Your task to perform on an android device: toggle translation in the chrome app Image 0: 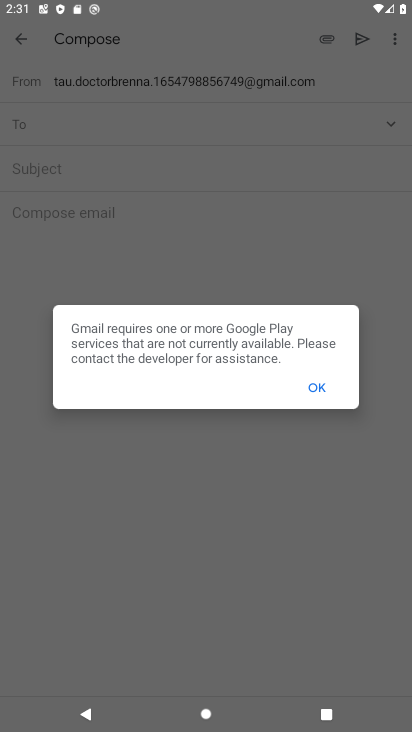
Step 0: press back button
Your task to perform on an android device: toggle translation in the chrome app Image 1: 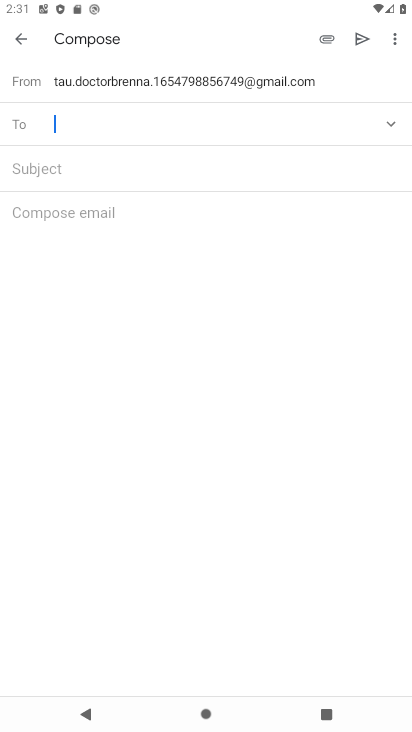
Step 1: press back button
Your task to perform on an android device: toggle translation in the chrome app Image 2: 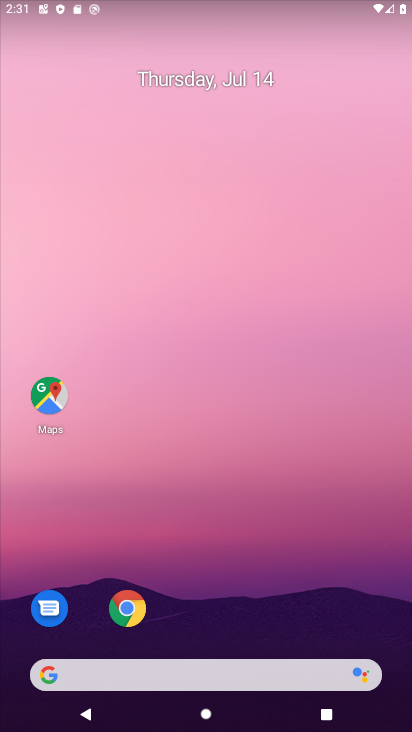
Step 2: click (138, 613)
Your task to perform on an android device: toggle translation in the chrome app Image 3: 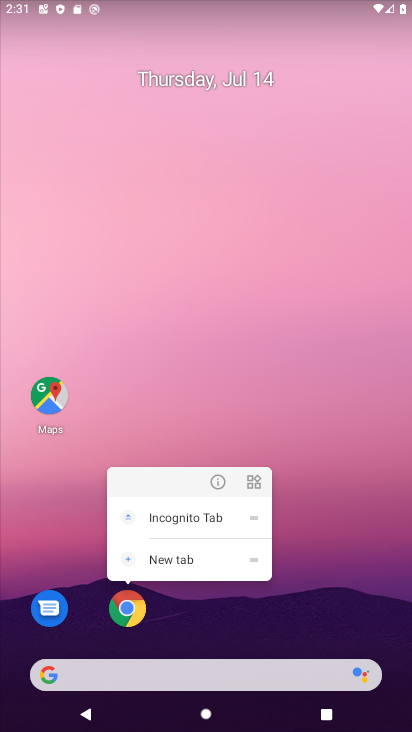
Step 3: click (130, 611)
Your task to perform on an android device: toggle translation in the chrome app Image 4: 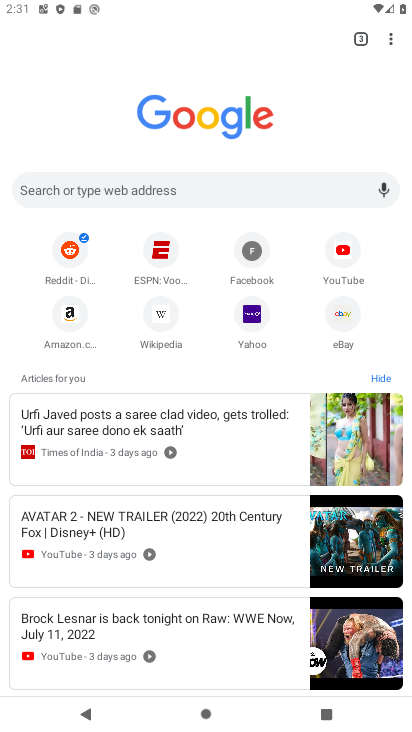
Step 4: drag from (388, 34) to (250, 328)
Your task to perform on an android device: toggle translation in the chrome app Image 5: 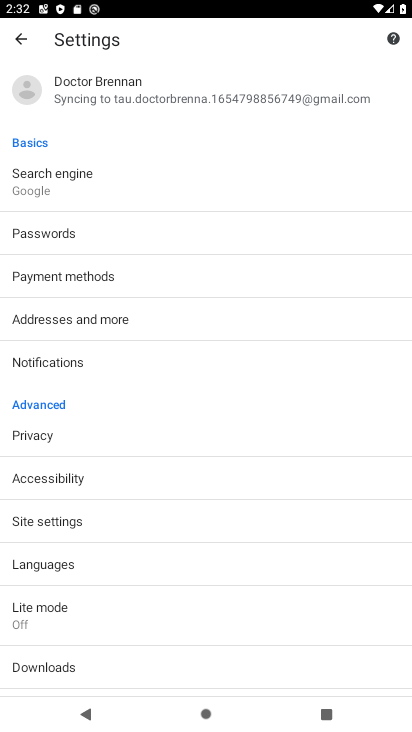
Step 5: click (45, 568)
Your task to perform on an android device: toggle translation in the chrome app Image 6: 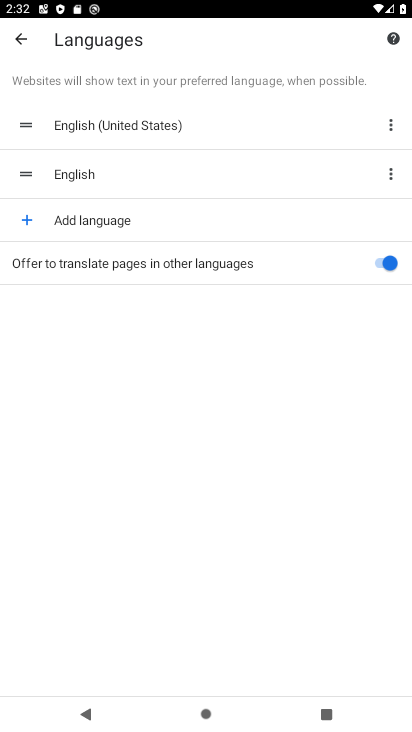
Step 6: click (389, 259)
Your task to perform on an android device: toggle translation in the chrome app Image 7: 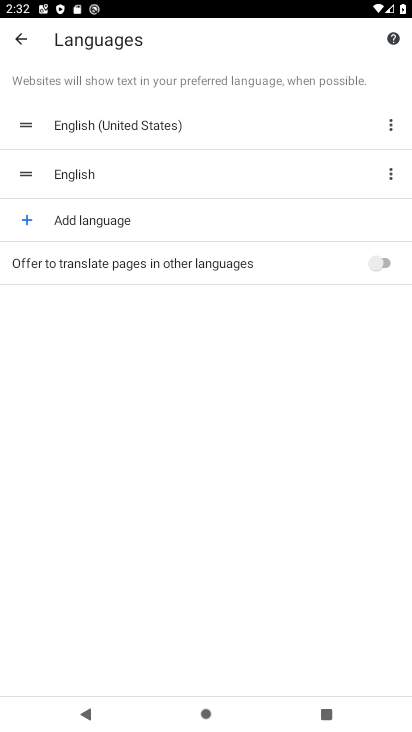
Step 7: task complete